Your task to perform on an android device: Go to internet settings Image 0: 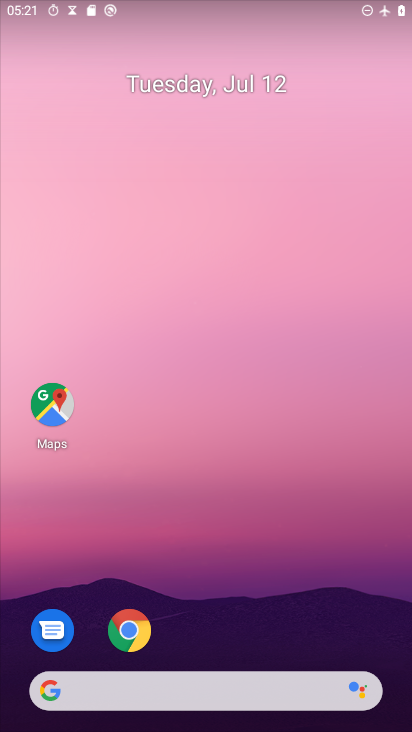
Step 0: drag from (191, 688) to (182, 227)
Your task to perform on an android device: Go to internet settings Image 1: 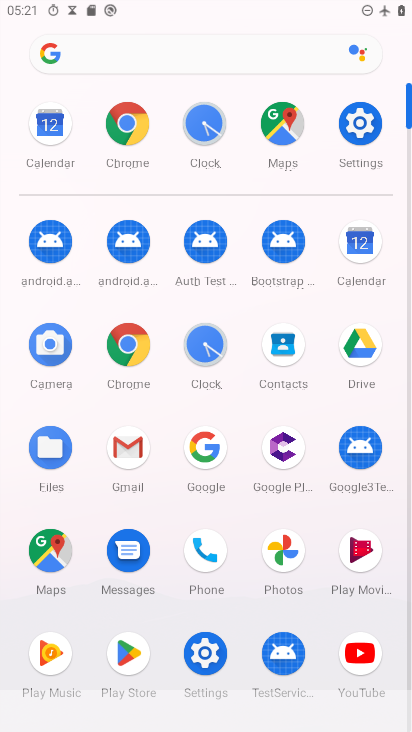
Step 1: click (373, 131)
Your task to perform on an android device: Go to internet settings Image 2: 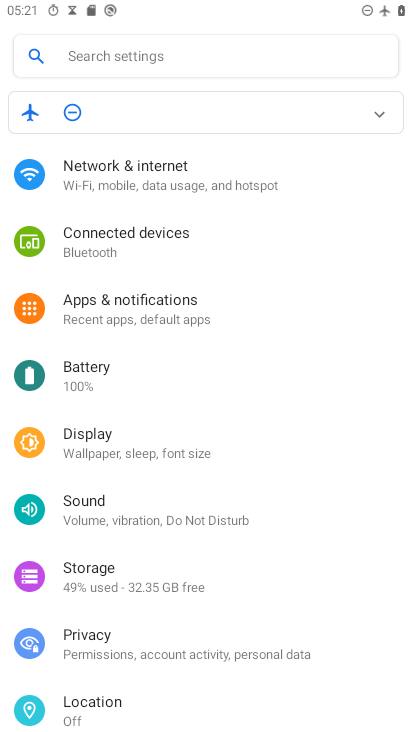
Step 2: click (208, 190)
Your task to perform on an android device: Go to internet settings Image 3: 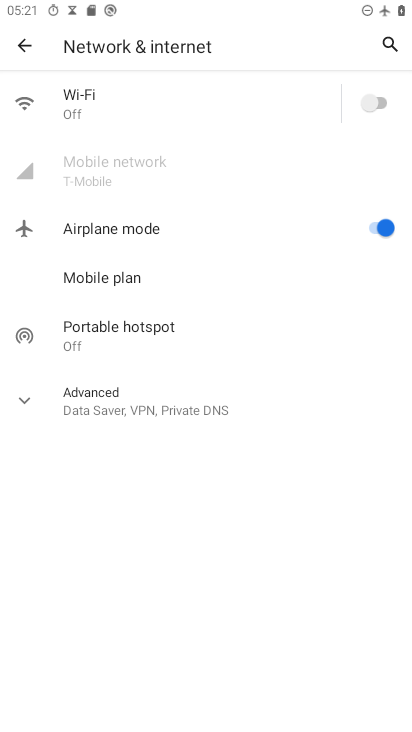
Step 3: task complete